Your task to perform on an android device: Search for the best books of all time on Goodreads Image 0: 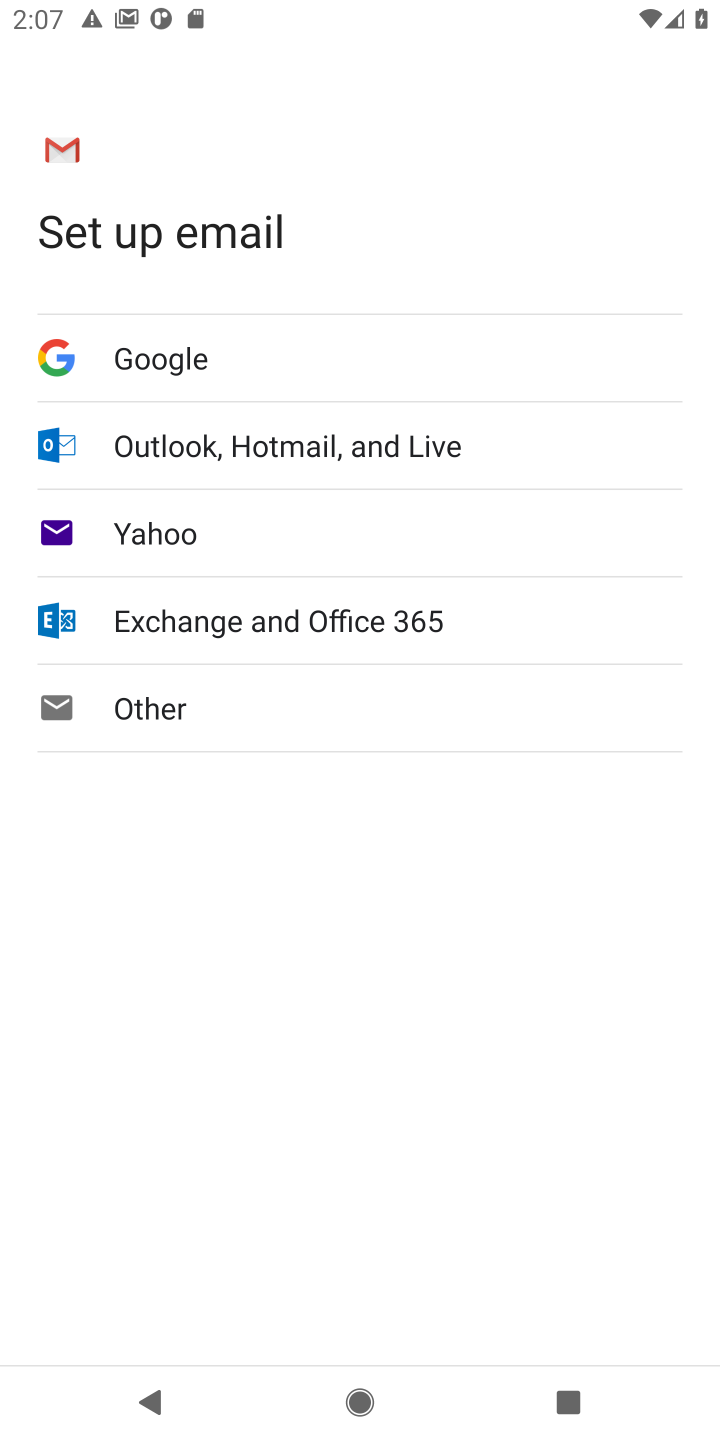
Step 0: drag from (393, 1021) to (614, 520)
Your task to perform on an android device: Search for the best books of all time on Goodreads Image 1: 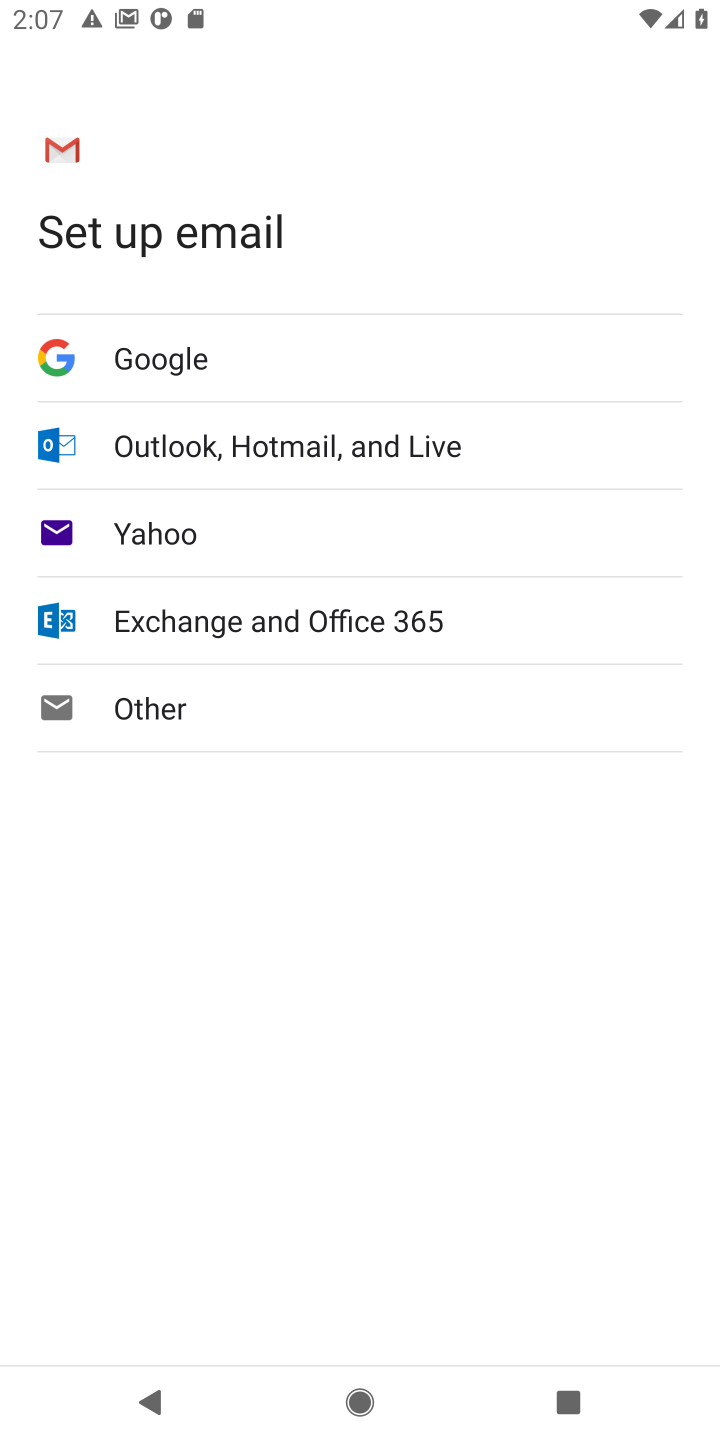
Step 1: press home button
Your task to perform on an android device: Search for the best books of all time on Goodreads Image 2: 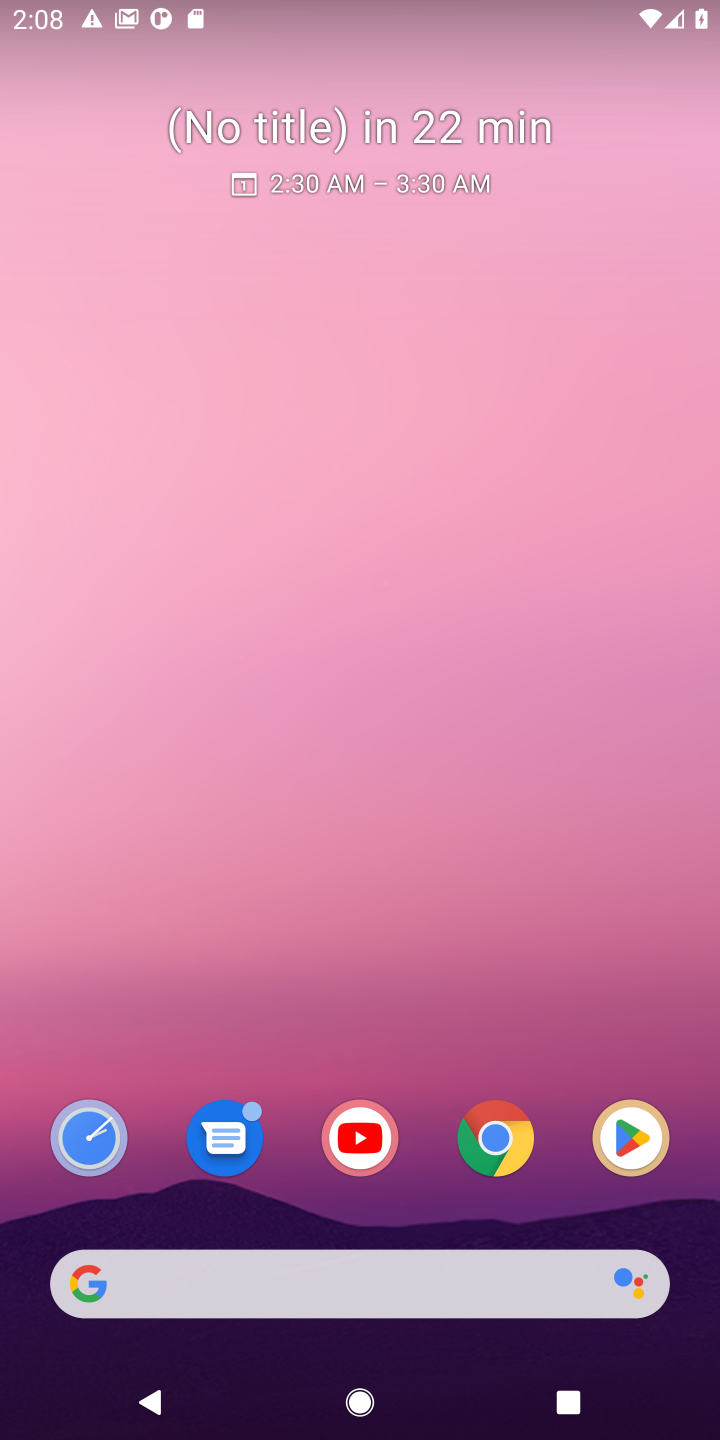
Step 2: drag from (442, 807) to (506, 133)
Your task to perform on an android device: Search for the best books of all time on Goodreads Image 3: 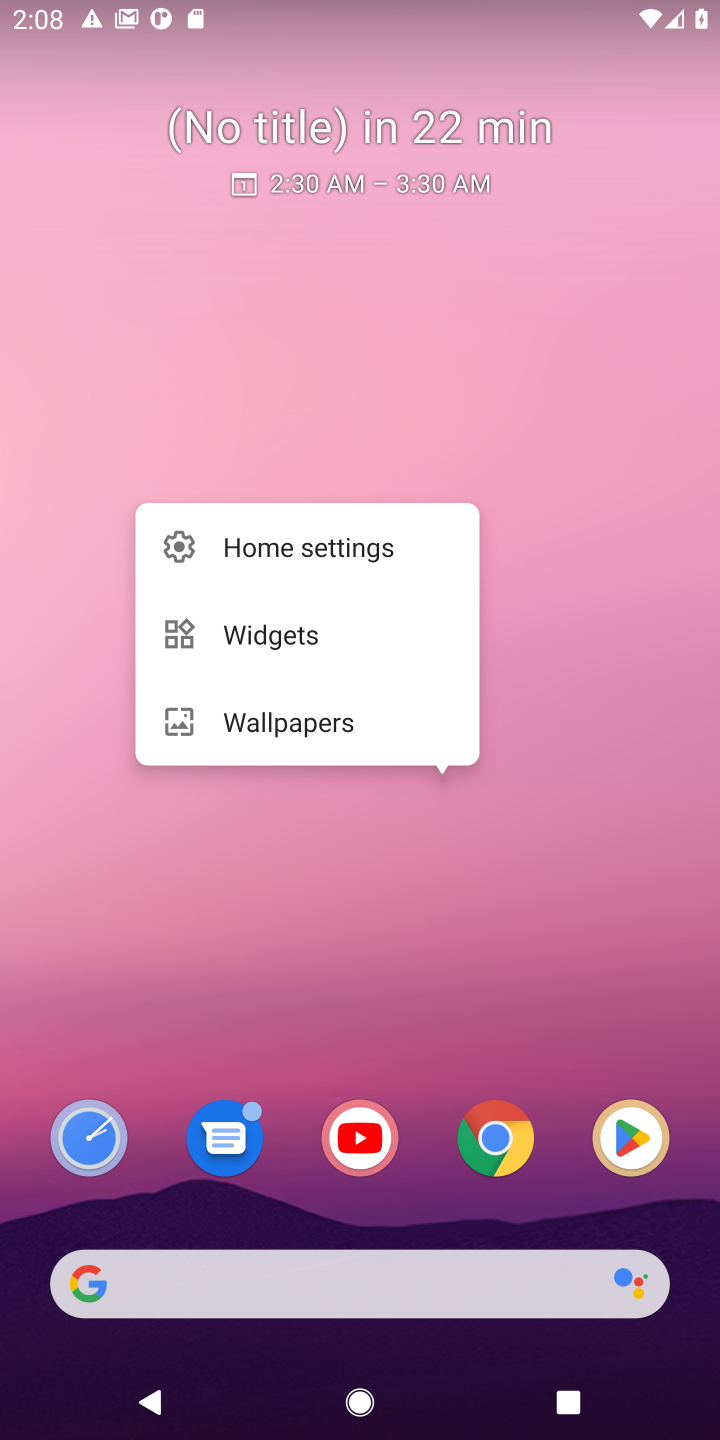
Step 3: click (665, 431)
Your task to perform on an android device: Search for the best books of all time on Goodreads Image 4: 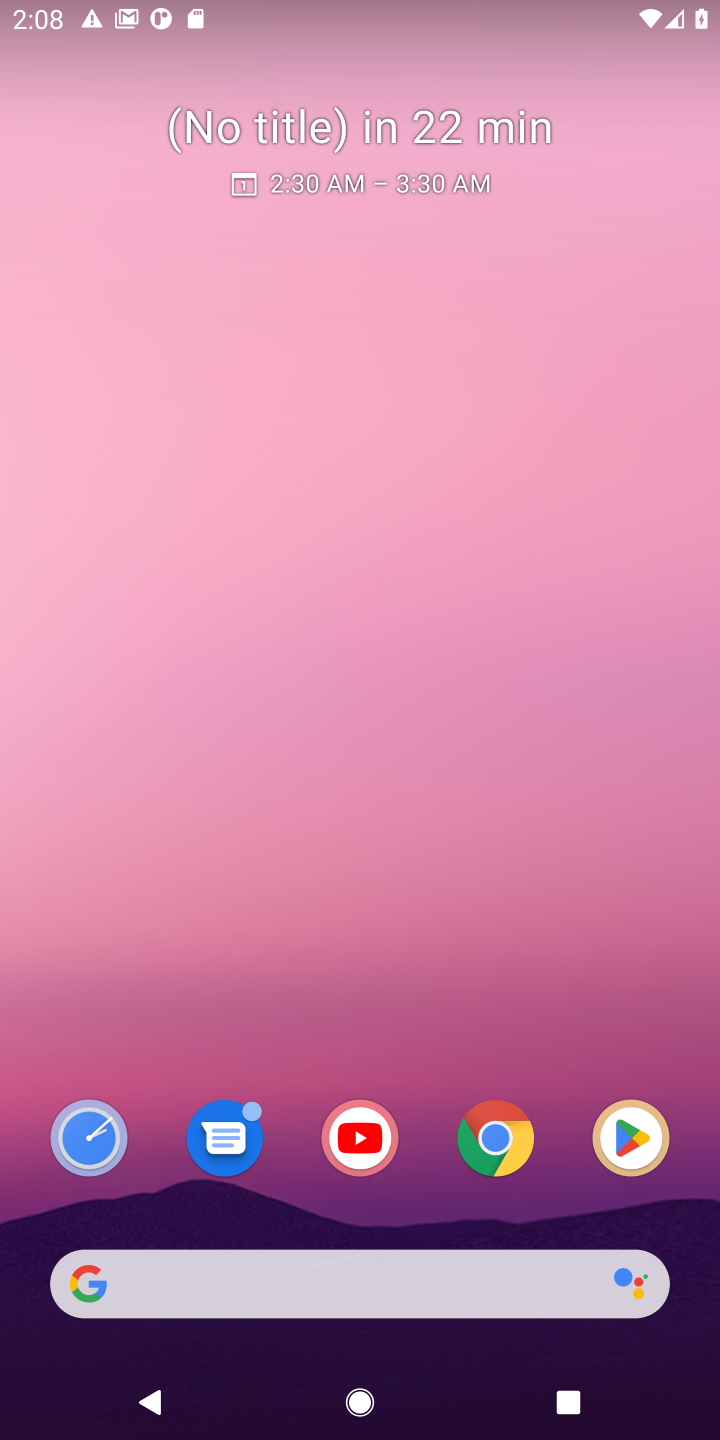
Step 4: drag from (575, 1218) to (573, 41)
Your task to perform on an android device: Search for the best books of all time on Goodreads Image 5: 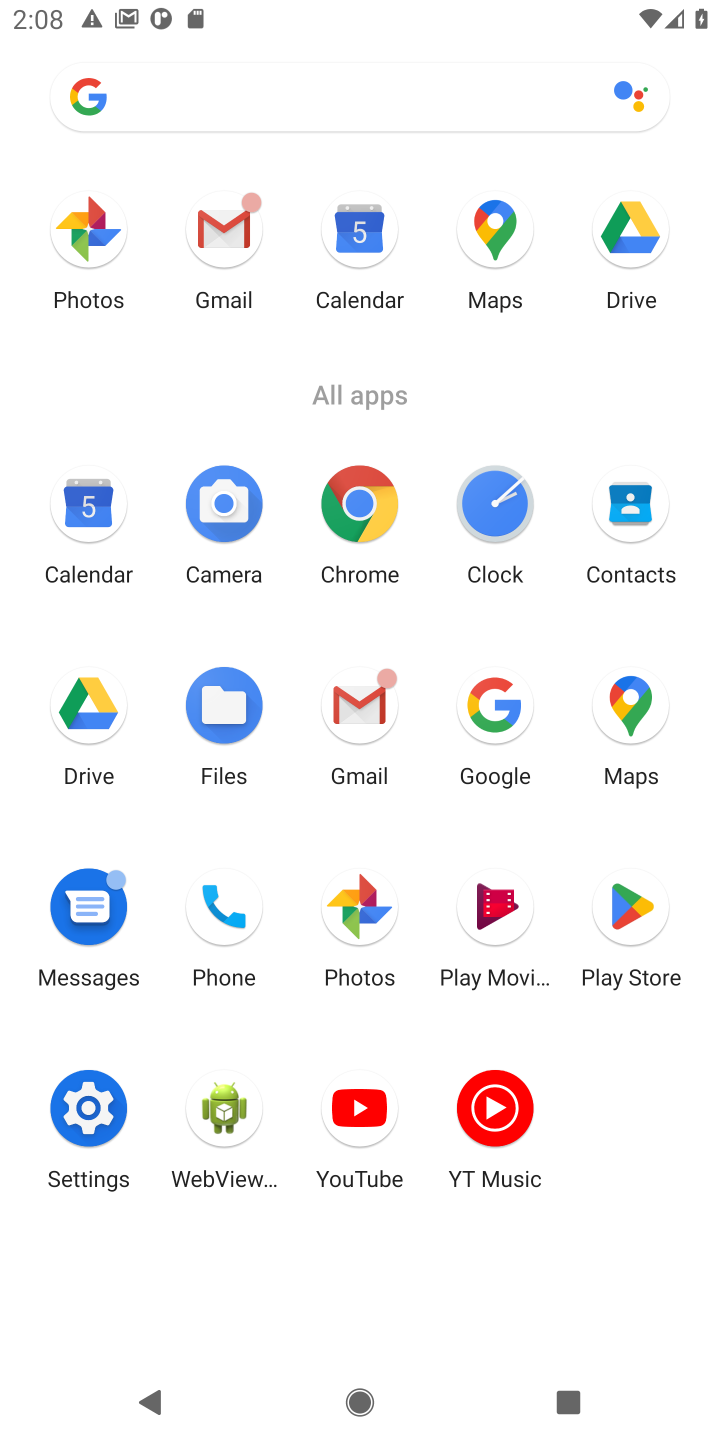
Step 5: click (360, 492)
Your task to perform on an android device: Search for the best books of all time on Goodreads Image 6: 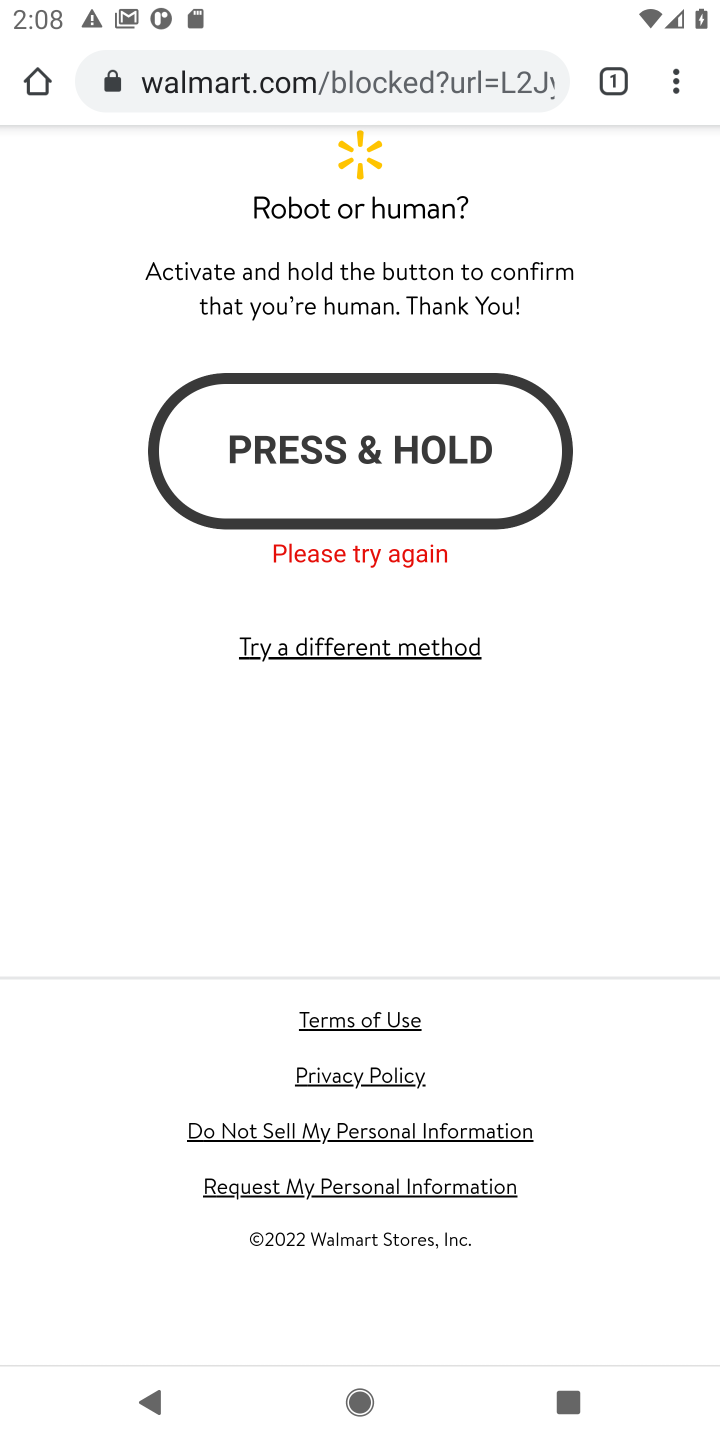
Step 6: click (366, 84)
Your task to perform on an android device: Search for the best books of all time on Goodreads Image 7: 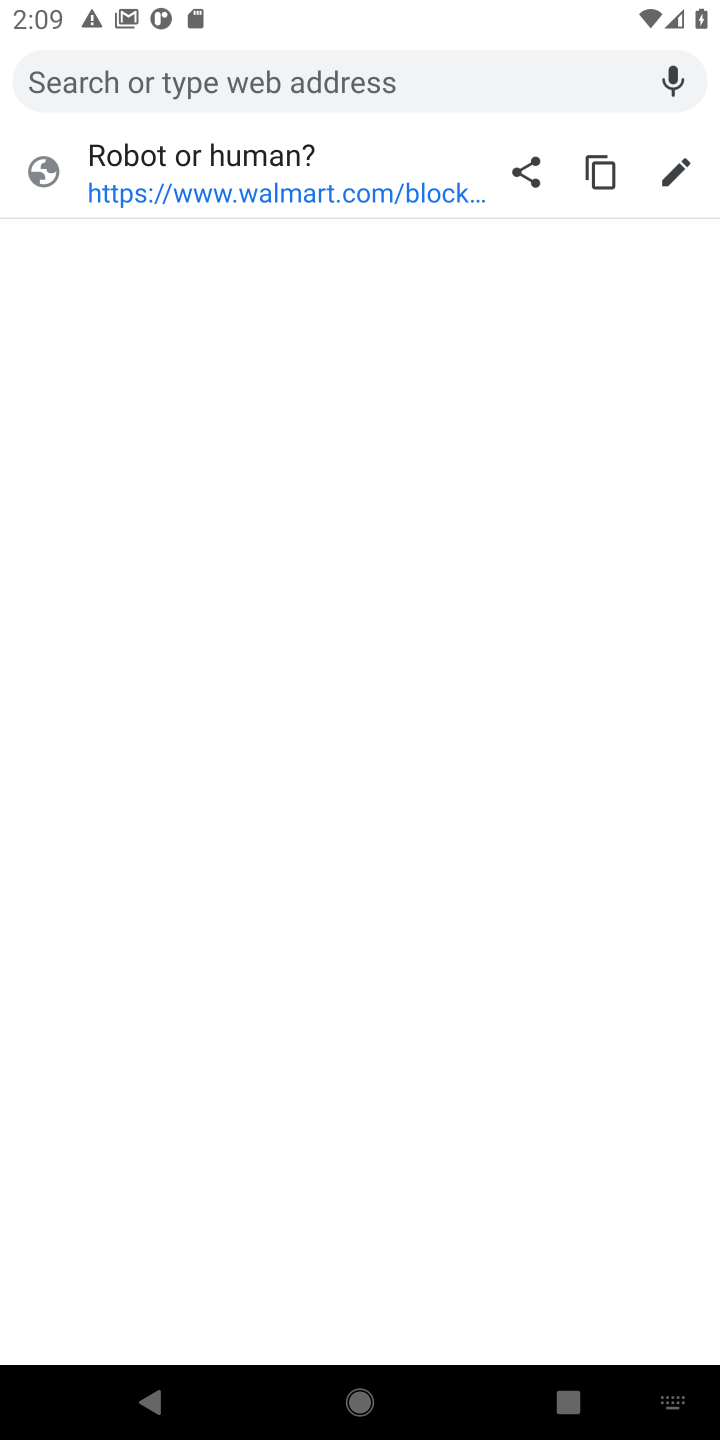
Step 7: type "bbest ook of all time on Goodreads"
Your task to perform on an android device: Search for the best books of all time on Goodreads Image 8: 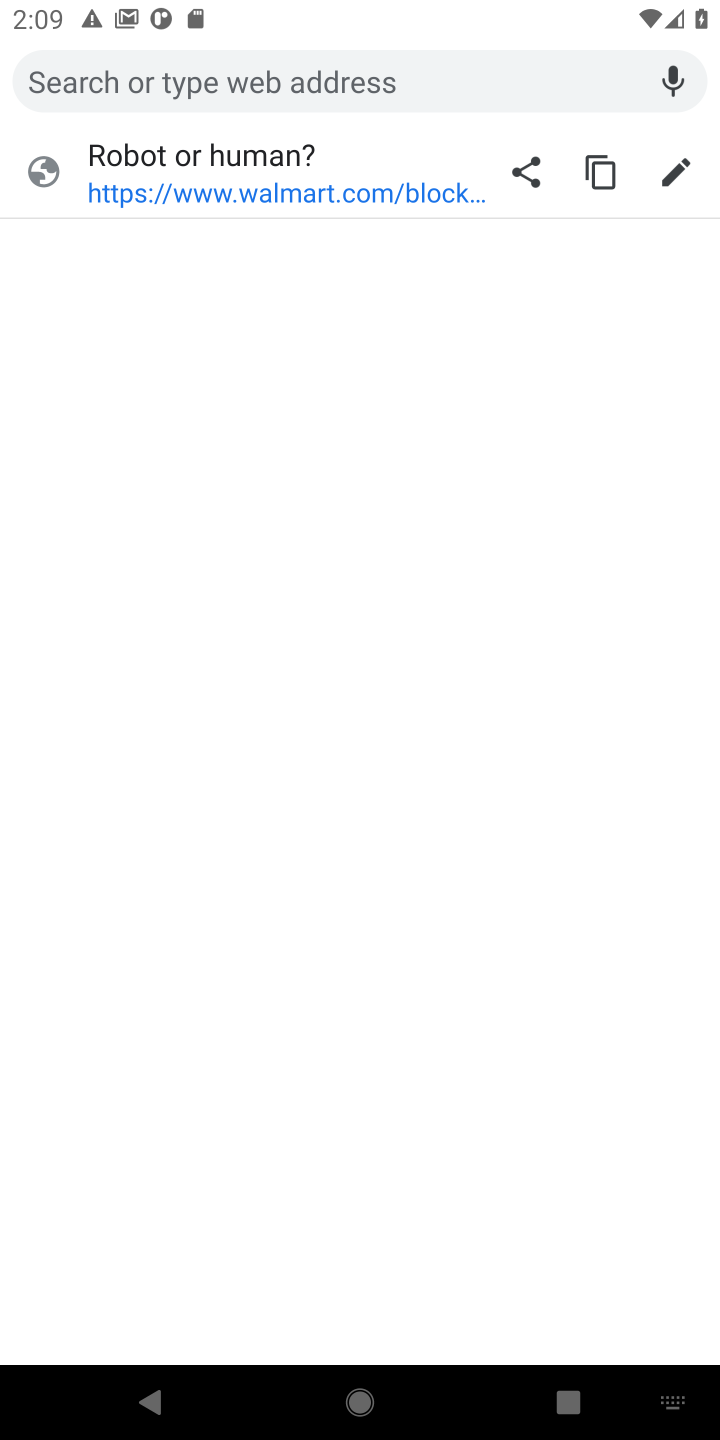
Step 8: click (442, 58)
Your task to perform on an android device: Search for the best books of all time on Goodreads Image 9: 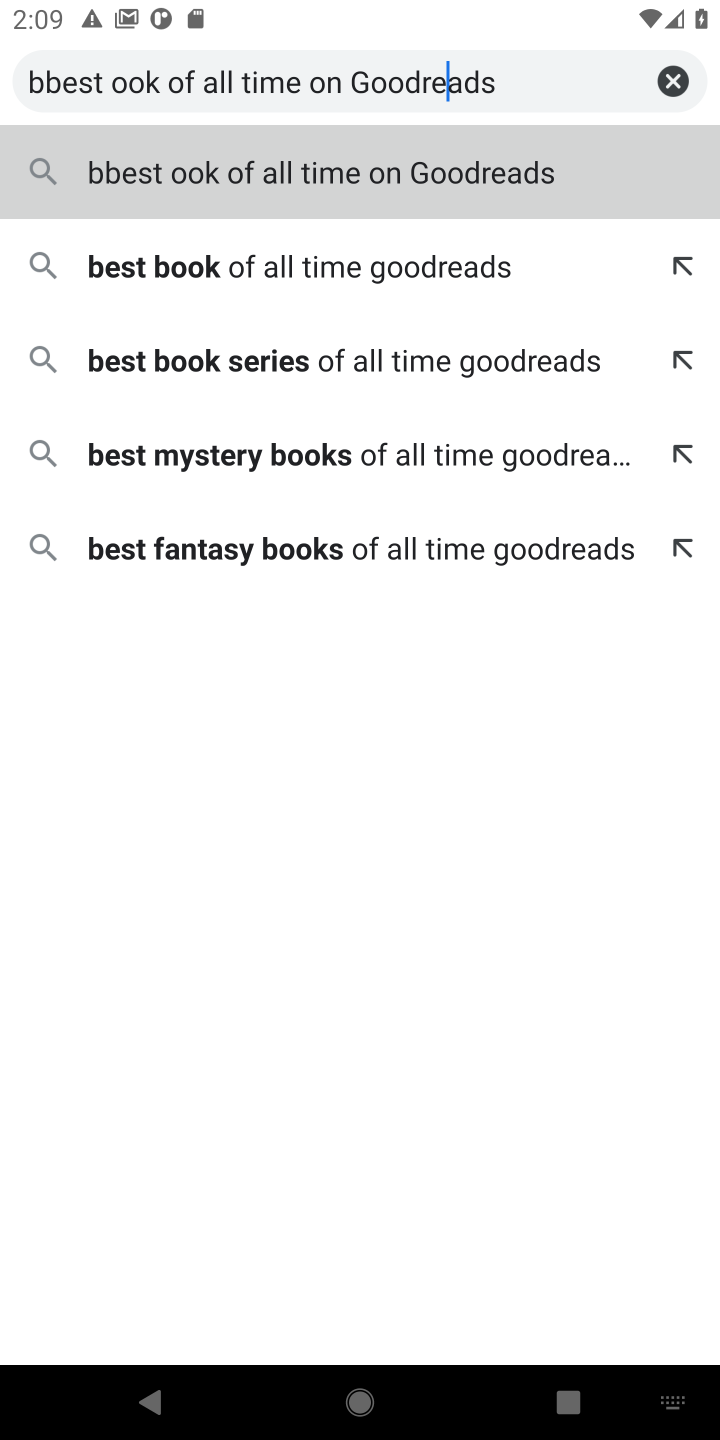
Step 9: click (380, 264)
Your task to perform on an android device: Search for the best books of all time on Goodreads Image 10: 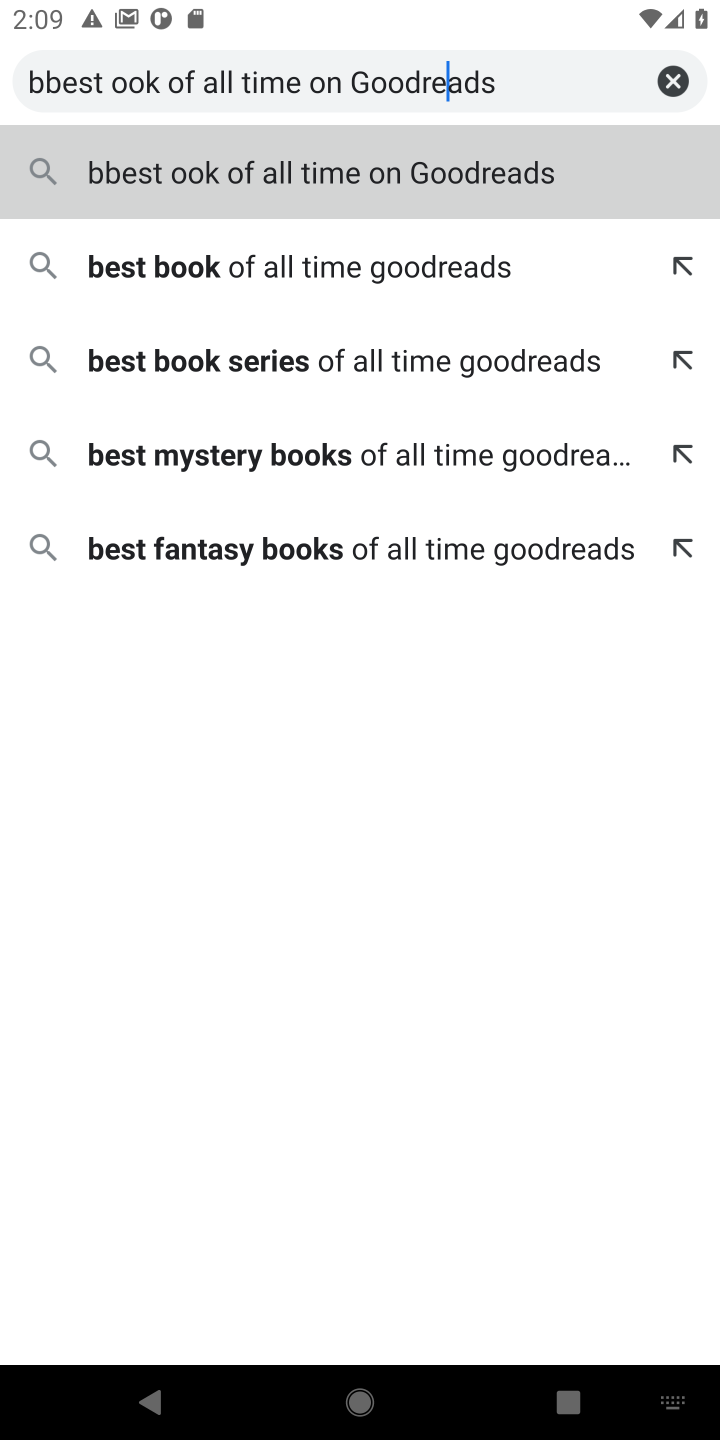
Step 10: click (494, 264)
Your task to perform on an android device: Search for the best books of all time on Goodreads Image 11: 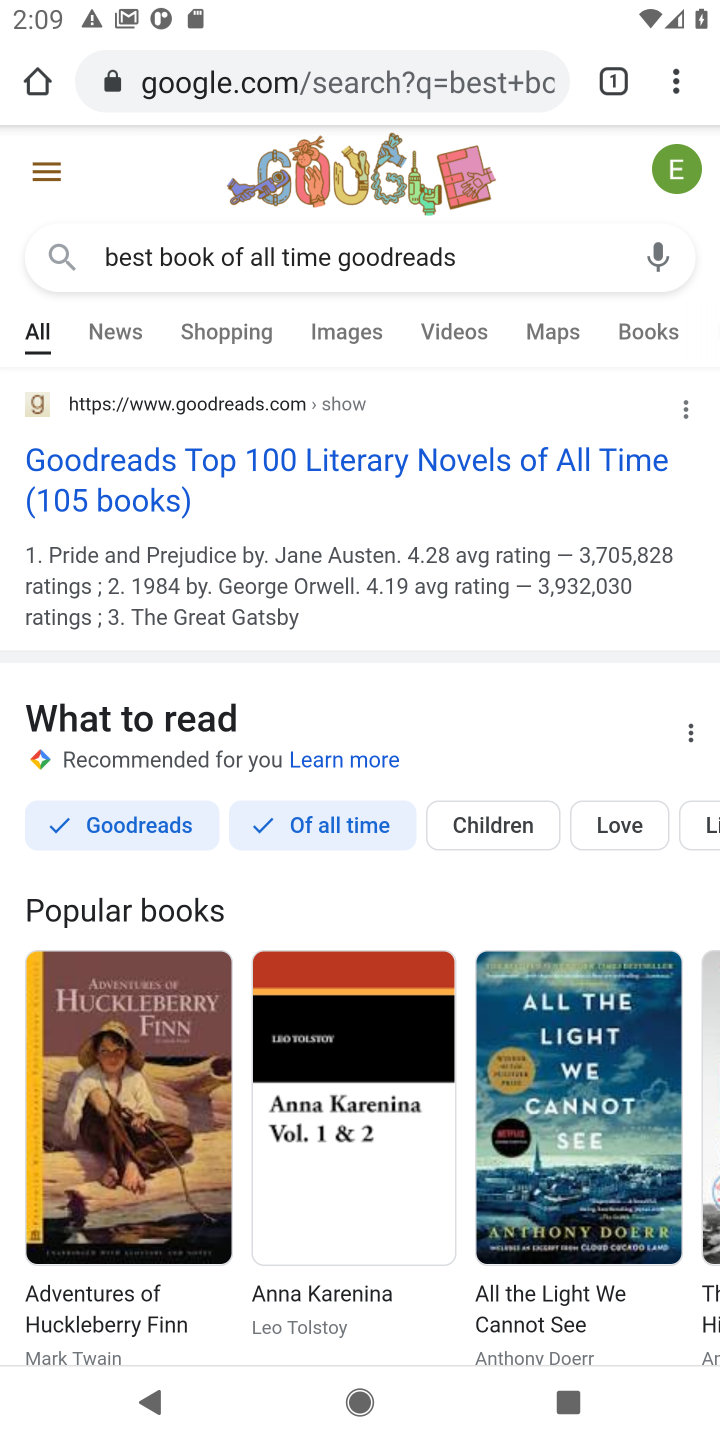
Step 11: press enter
Your task to perform on an android device: Search for the best books of all time on Goodreads Image 12: 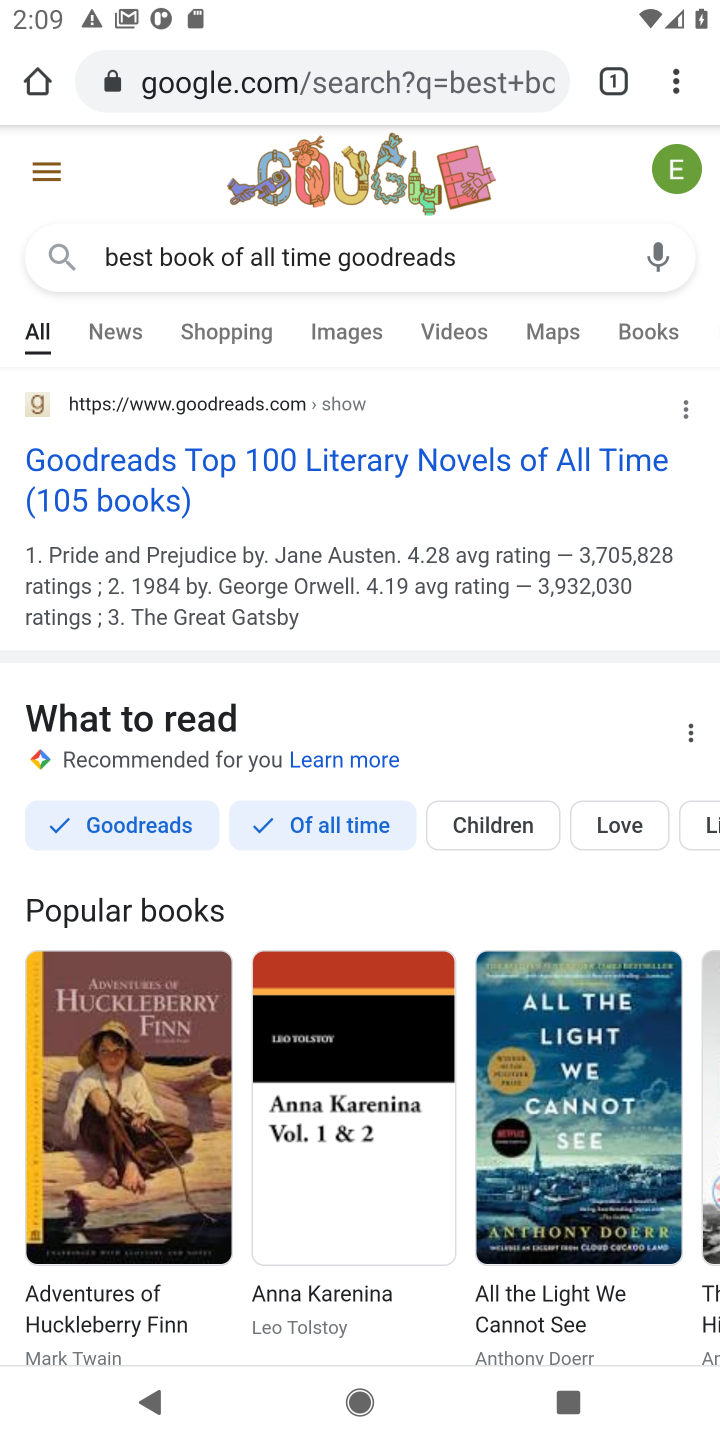
Step 12: click (318, 458)
Your task to perform on an android device: Search for the best books of all time on Goodreads Image 13: 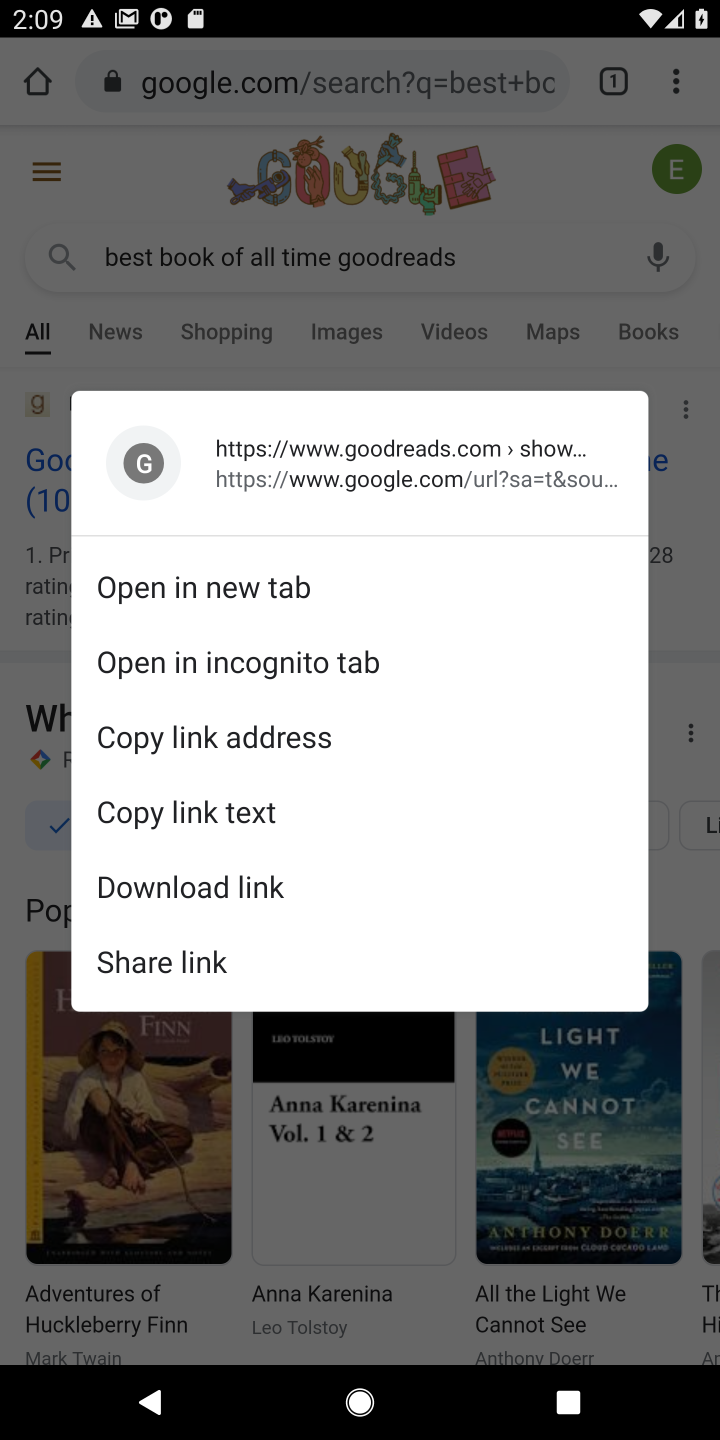
Step 13: click (525, 217)
Your task to perform on an android device: Search for the best books of all time on Goodreads Image 14: 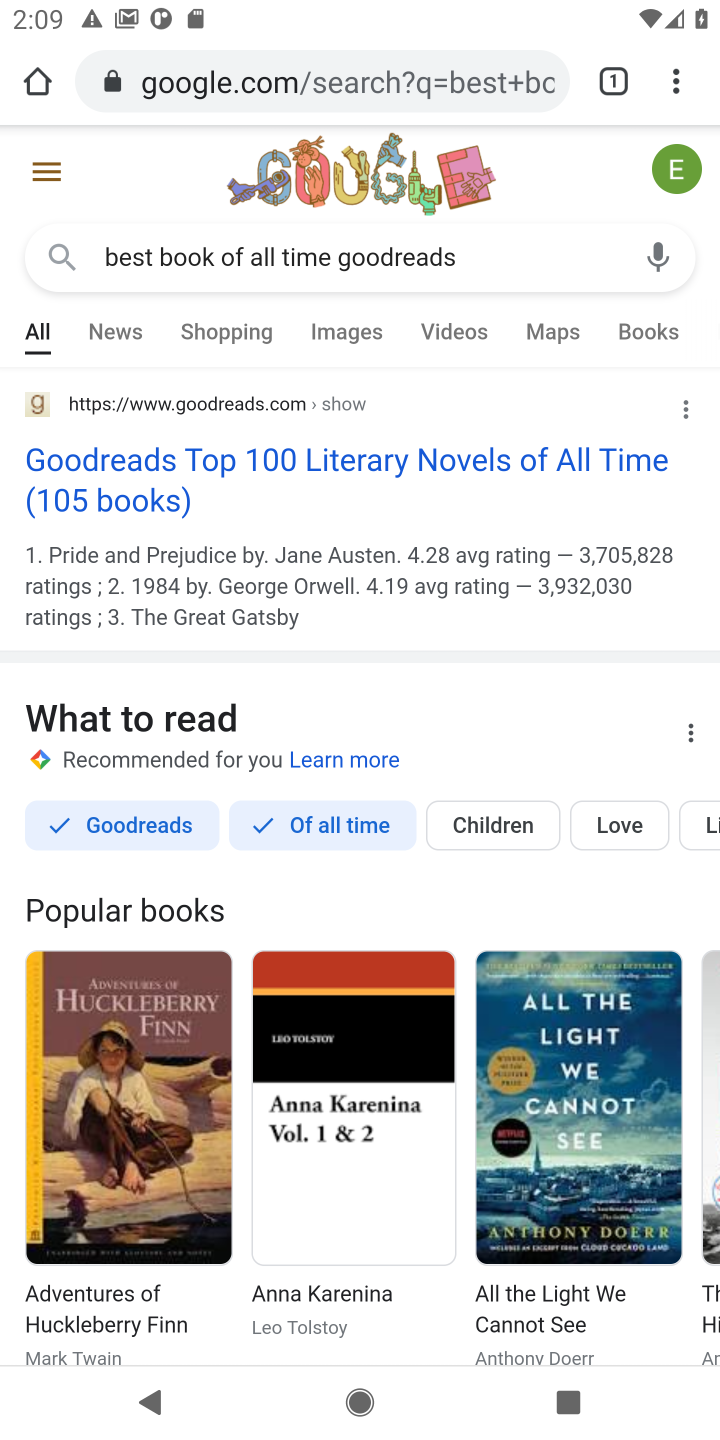
Step 14: click (412, 471)
Your task to perform on an android device: Search for the best books of all time on Goodreads Image 15: 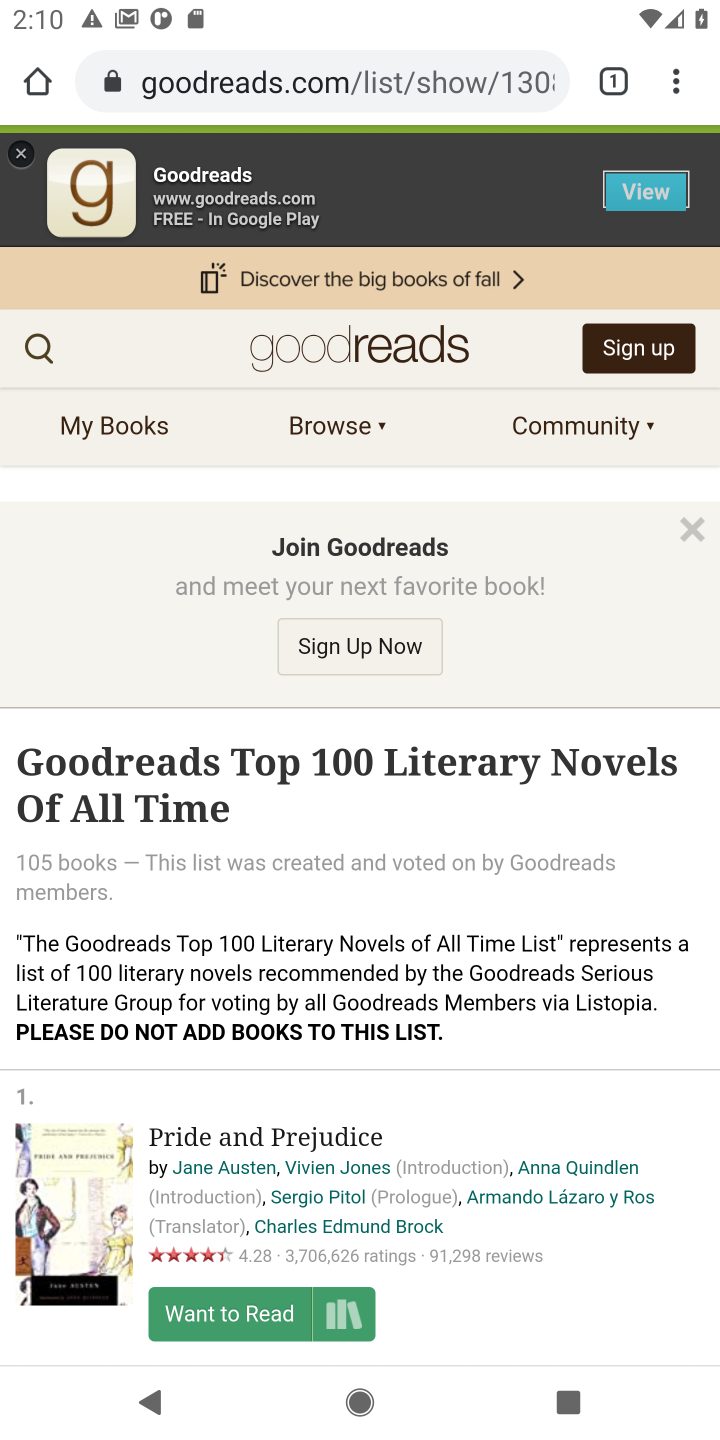
Step 15: task complete